Your task to perform on an android device: When is my next appointment? Image 0: 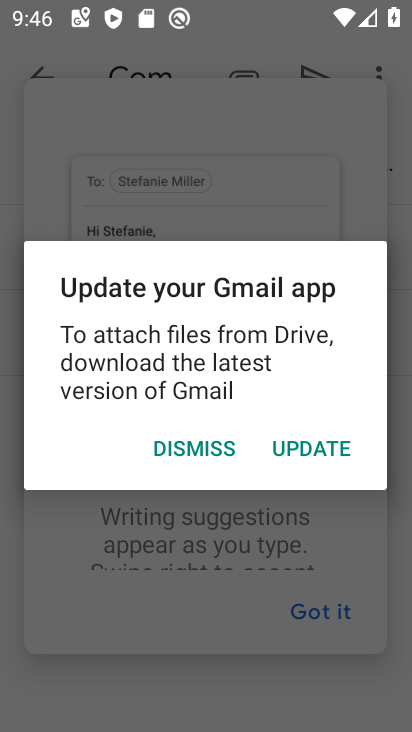
Step 0: press home button
Your task to perform on an android device: When is my next appointment? Image 1: 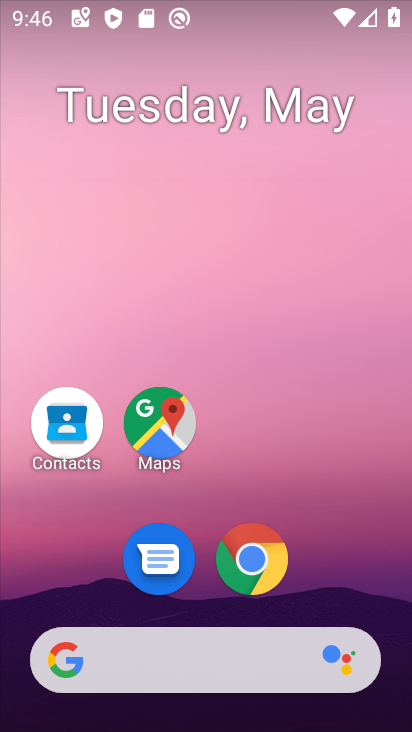
Step 1: drag from (332, 568) to (278, 46)
Your task to perform on an android device: When is my next appointment? Image 2: 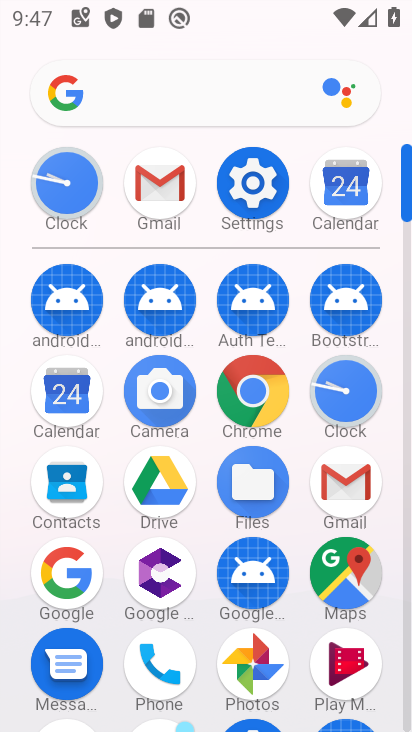
Step 2: click (335, 213)
Your task to perform on an android device: When is my next appointment? Image 3: 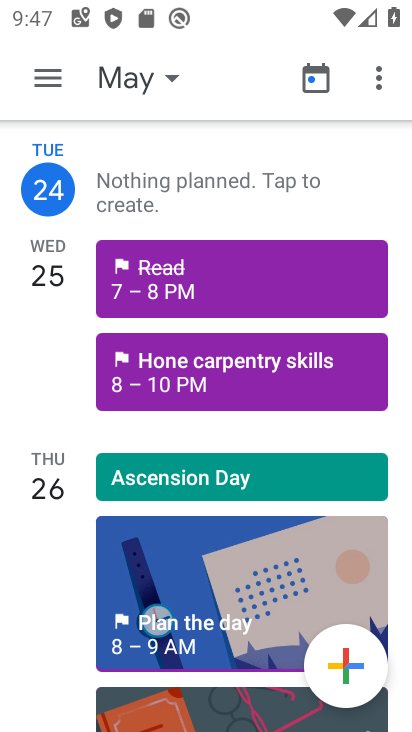
Step 3: task complete